Your task to perform on an android device: Open Google Image 0: 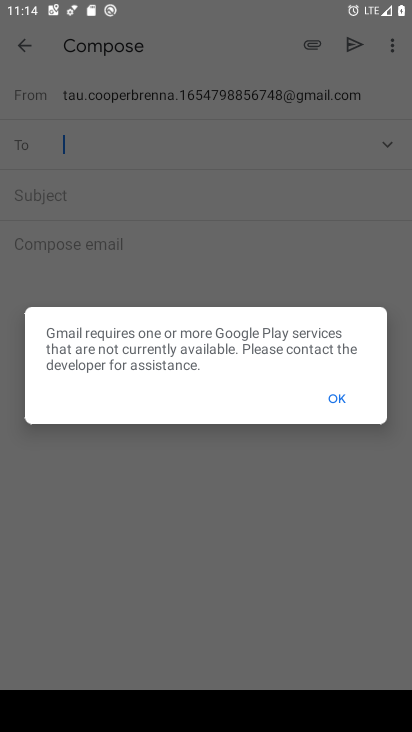
Step 0: press home button
Your task to perform on an android device: Open Google Image 1: 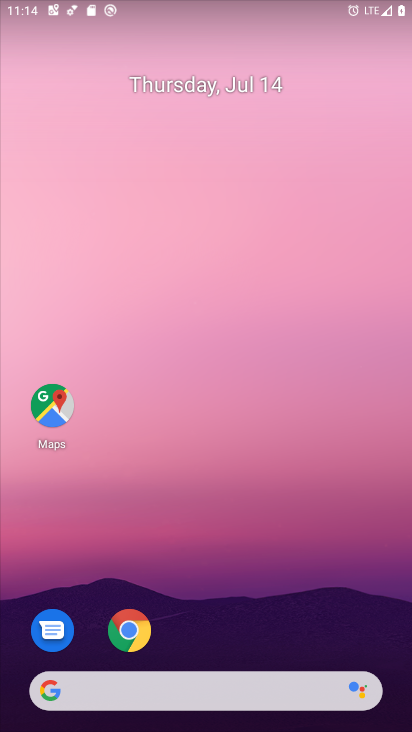
Step 1: drag from (220, 545) to (267, 40)
Your task to perform on an android device: Open Google Image 2: 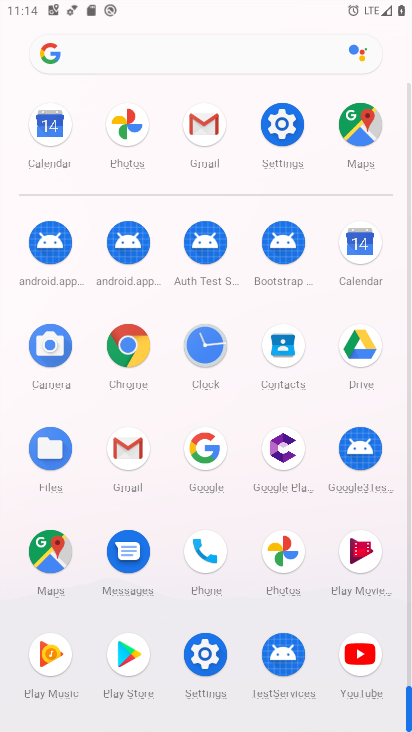
Step 2: click (197, 450)
Your task to perform on an android device: Open Google Image 3: 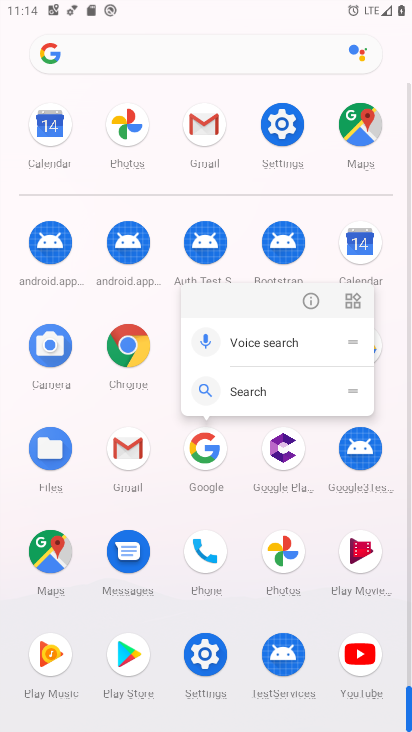
Step 3: click (306, 305)
Your task to perform on an android device: Open Google Image 4: 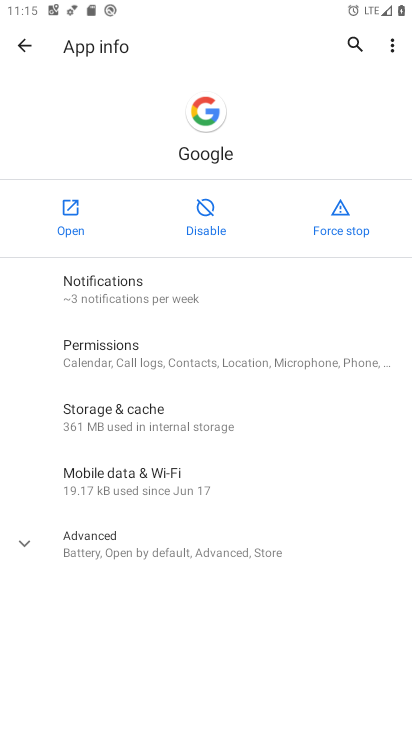
Step 4: click (69, 232)
Your task to perform on an android device: Open Google Image 5: 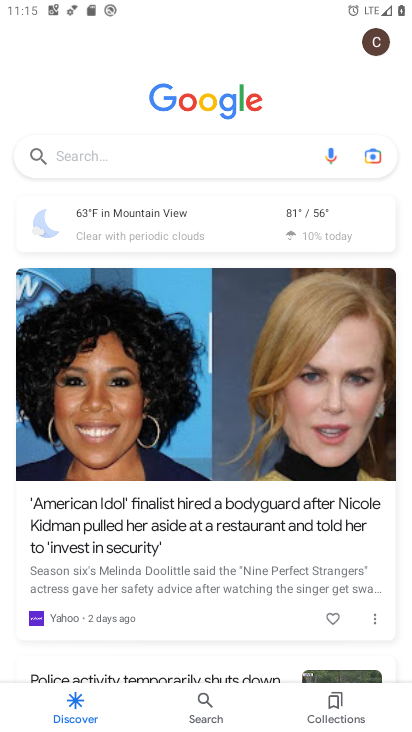
Step 5: task complete